Your task to perform on an android device: What is the news today? Image 0: 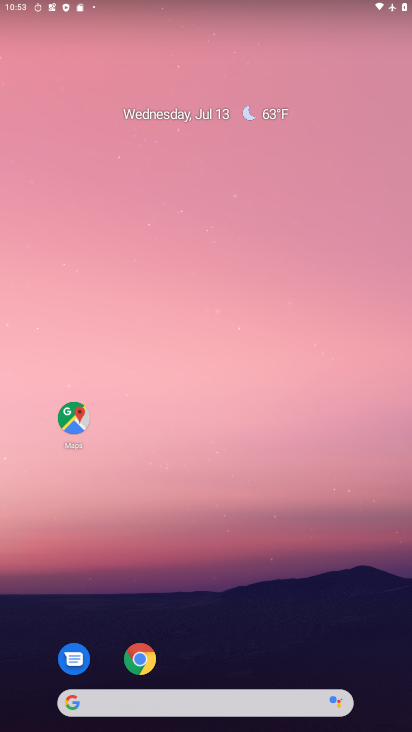
Step 0: drag from (309, 578) to (193, 1)
Your task to perform on an android device: What is the news today? Image 1: 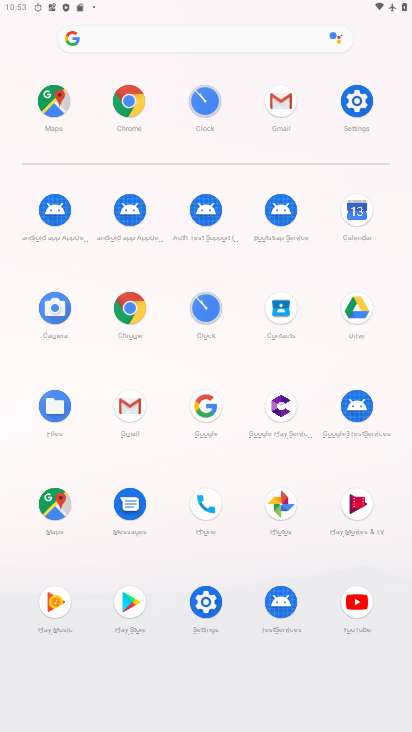
Step 1: click (130, 100)
Your task to perform on an android device: What is the news today? Image 2: 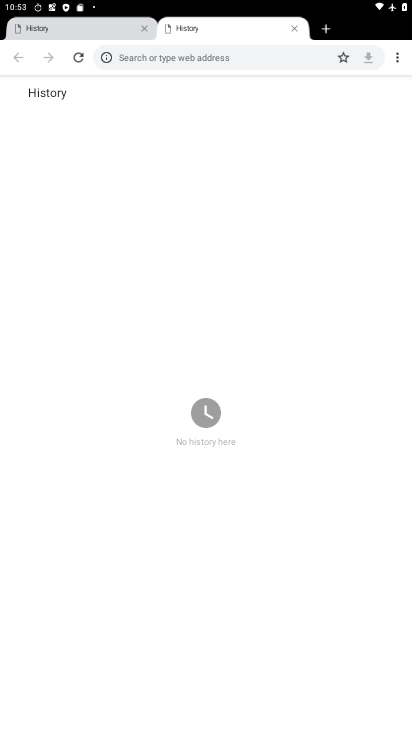
Step 2: click (187, 59)
Your task to perform on an android device: What is the news today? Image 3: 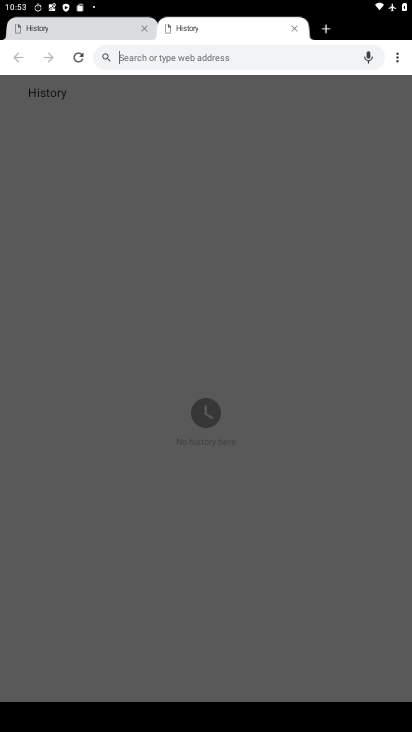
Step 3: type "news"
Your task to perform on an android device: What is the news today? Image 4: 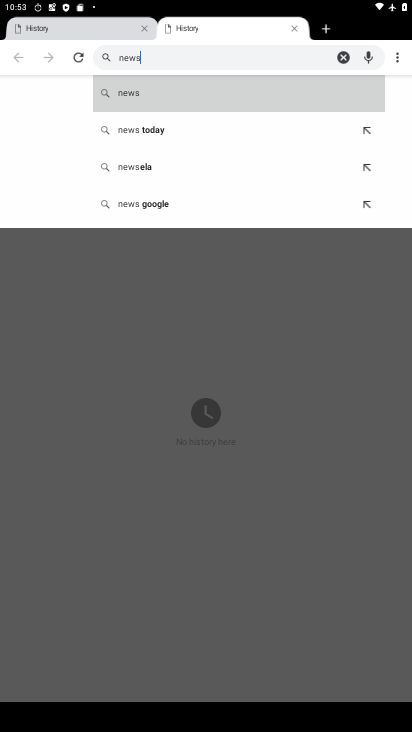
Step 4: click (157, 97)
Your task to perform on an android device: What is the news today? Image 5: 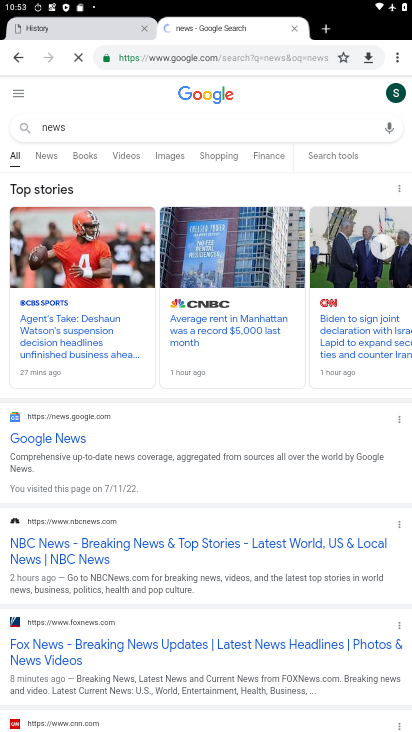
Step 5: click (68, 439)
Your task to perform on an android device: What is the news today? Image 6: 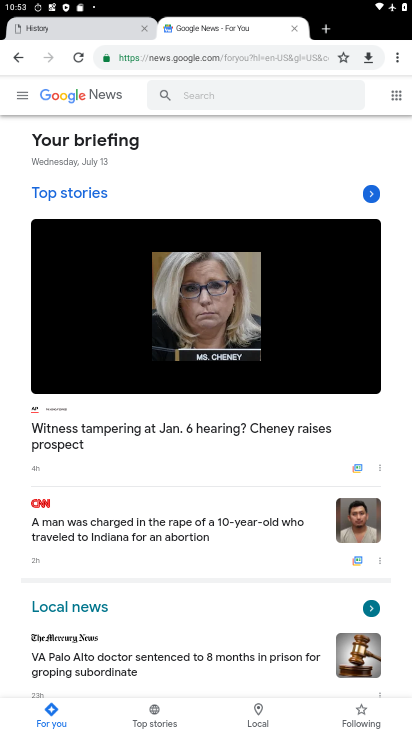
Step 6: task complete